Your task to perform on an android device: Open Youtube and go to "Your channel" Image 0: 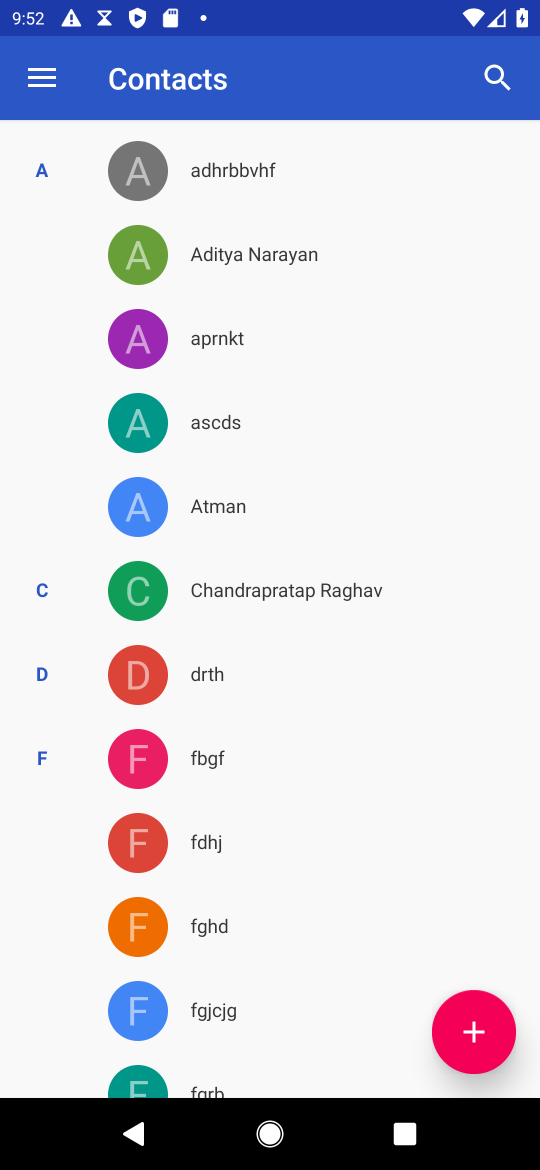
Step 0: press home button
Your task to perform on an android device: Open Youtube and go to "Your channel" Image 1: 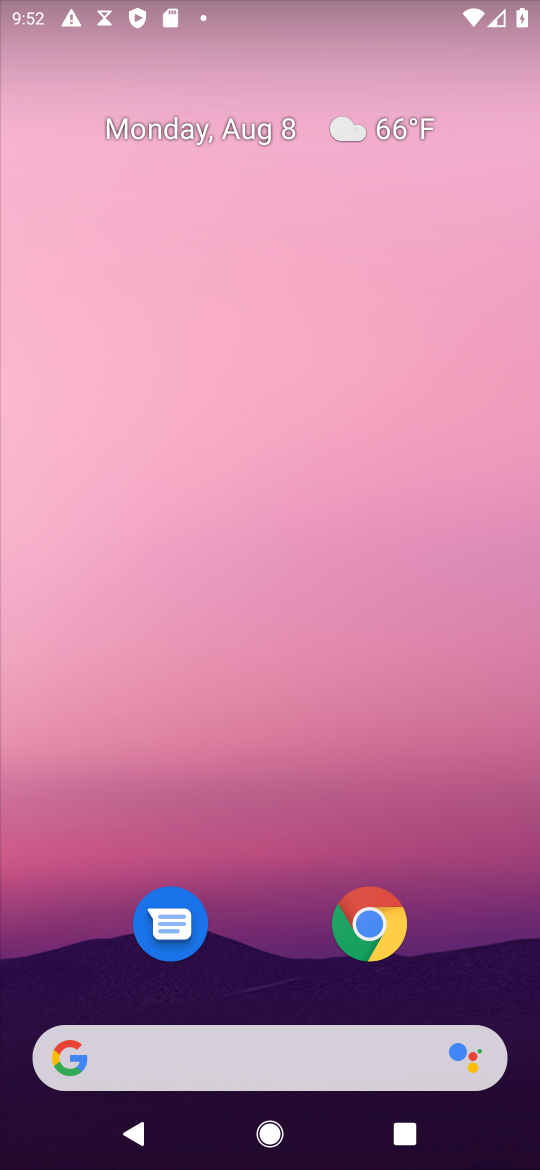
Step 1: drag from (284, 952) to (511, 5)
Your task to perform on an android device: Open Youtube and go to "Your channel" Image 2: 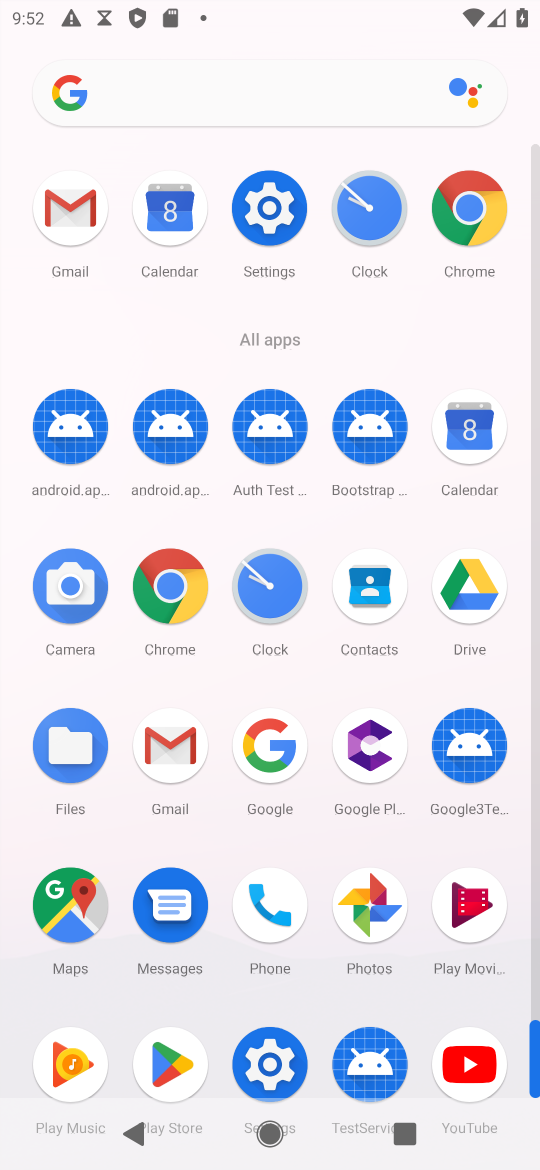
Step 2: click (468, 1067)
Your task to perform on an android device: Open Youtube and go to "Your channel" Image 3: 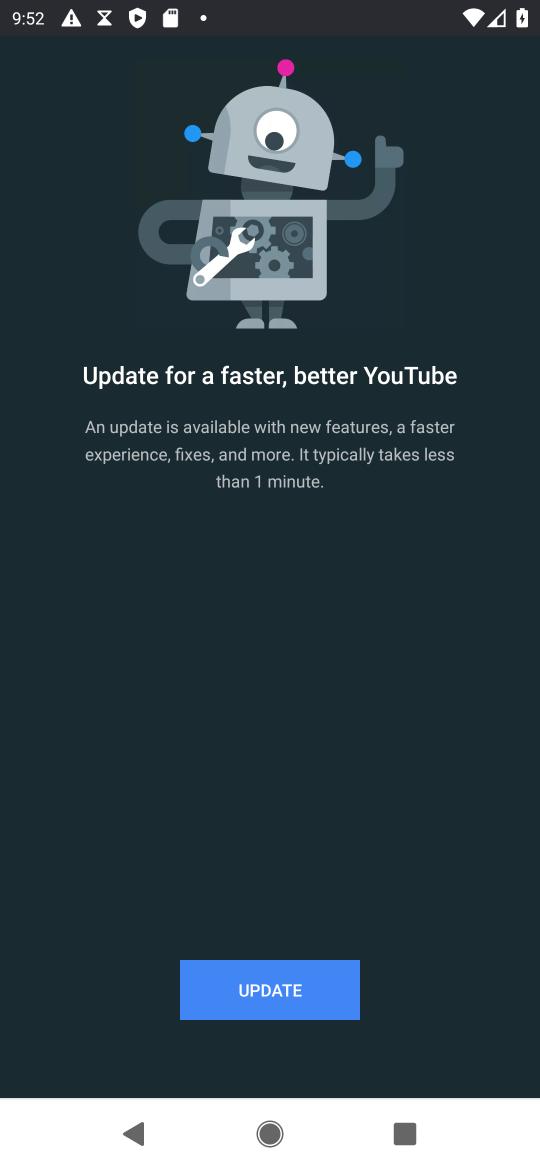
Step 3: click (327, 994)
Your task to perform on an android device: Open Youtube and go to "Your channel" Image 4: 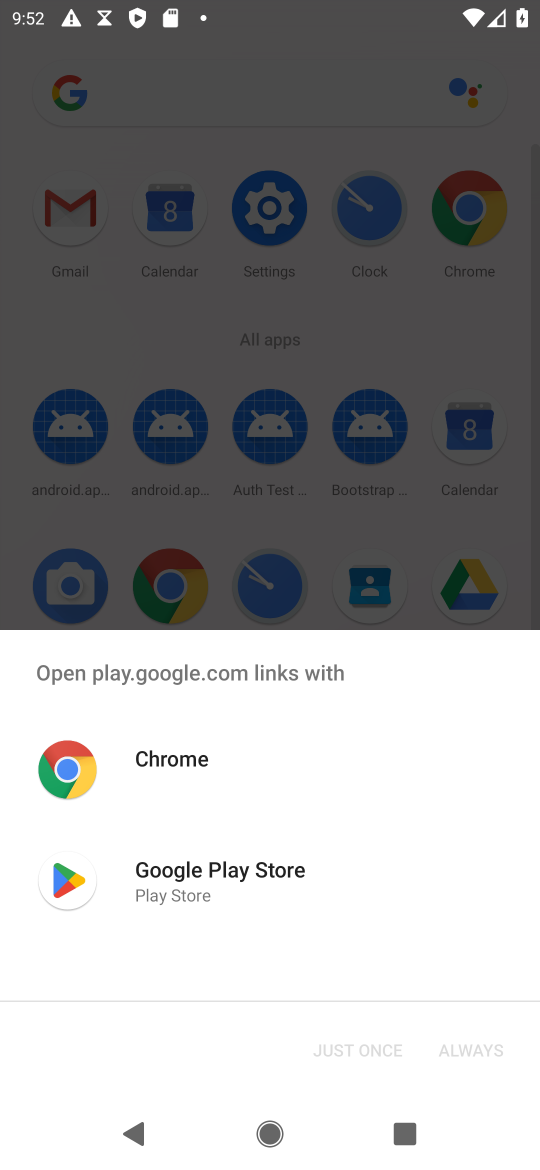
Step 4: click (179, 866)
Your task to perform on an android device: Open Youtube and go to "Your channel" Image 5: 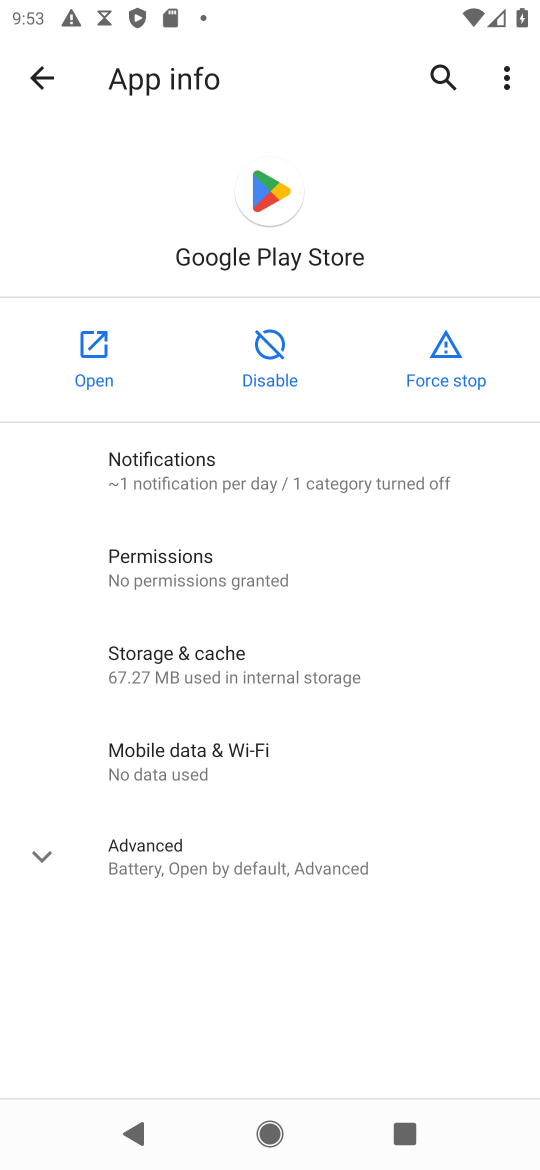
Step 5: click (39, 75)
Your task to perform on an android device: Open Youtube and go to "Your channel" Image 6: 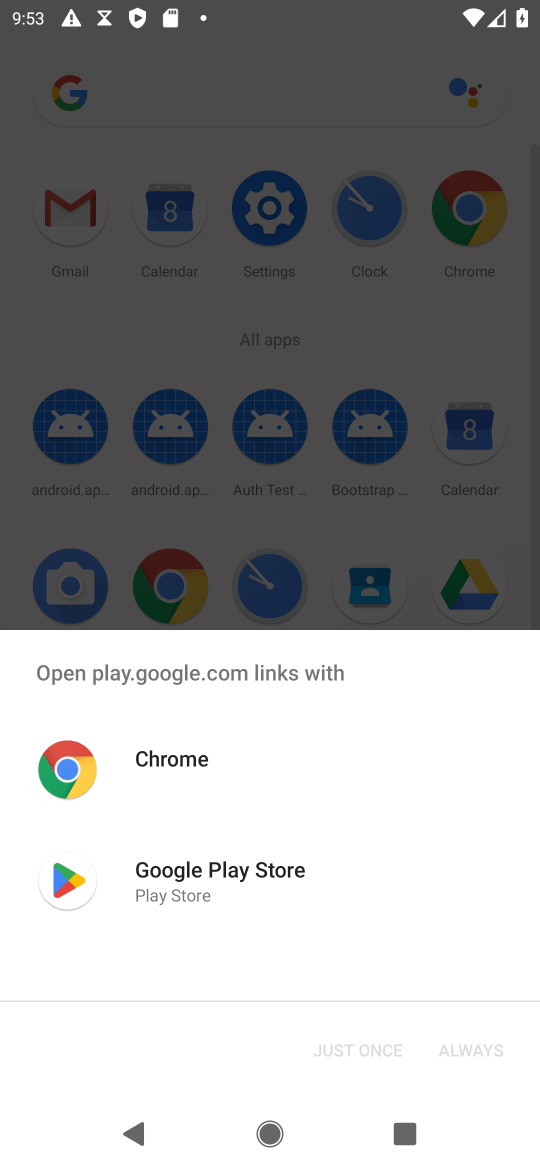
Step 6: click (81, 871)
Your task to perform on an android device: Open Youtube and go to "Your channel" Image 7: 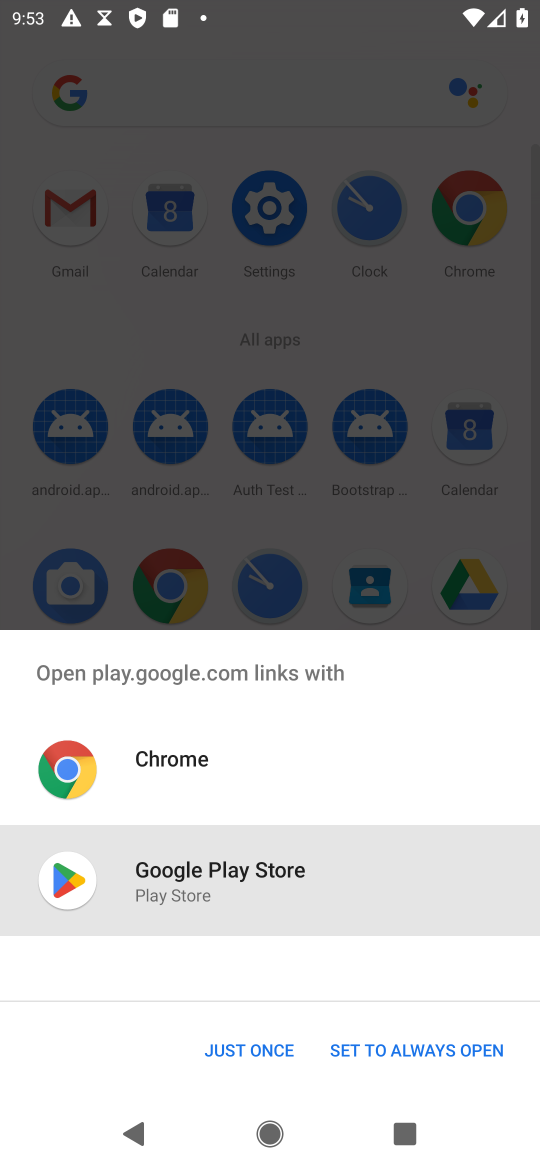
Step 7: click (242, 1032)
Your task to perform on an android device: Open Youtube and go to "Your channel" Image 8: 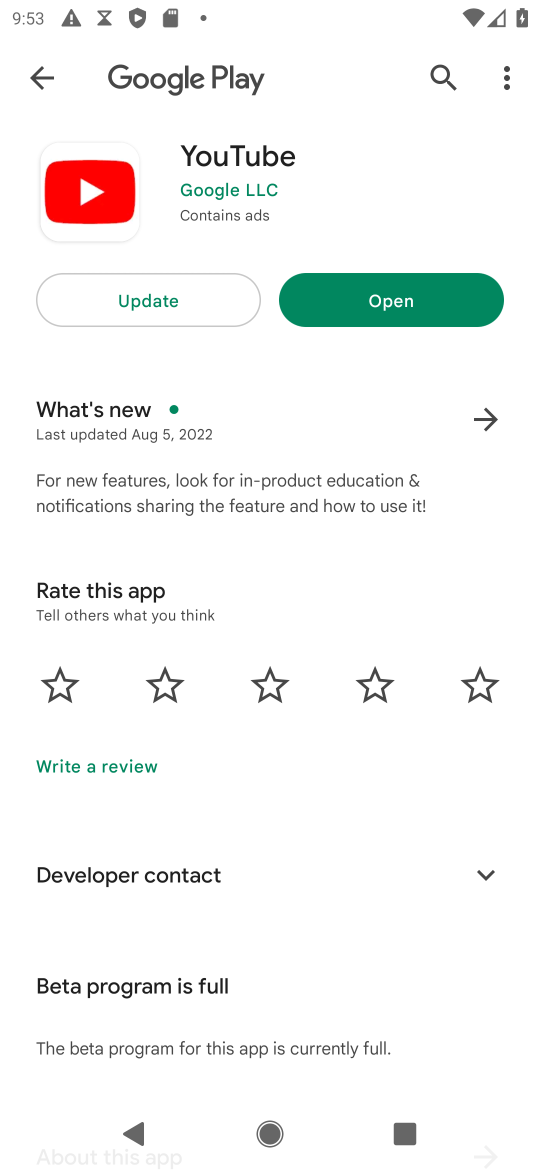
Step 8: drag from (401, 297) to (514, 422)
Your task to perform on an android device: Open Youtube and go to "Your channel" Image 9: 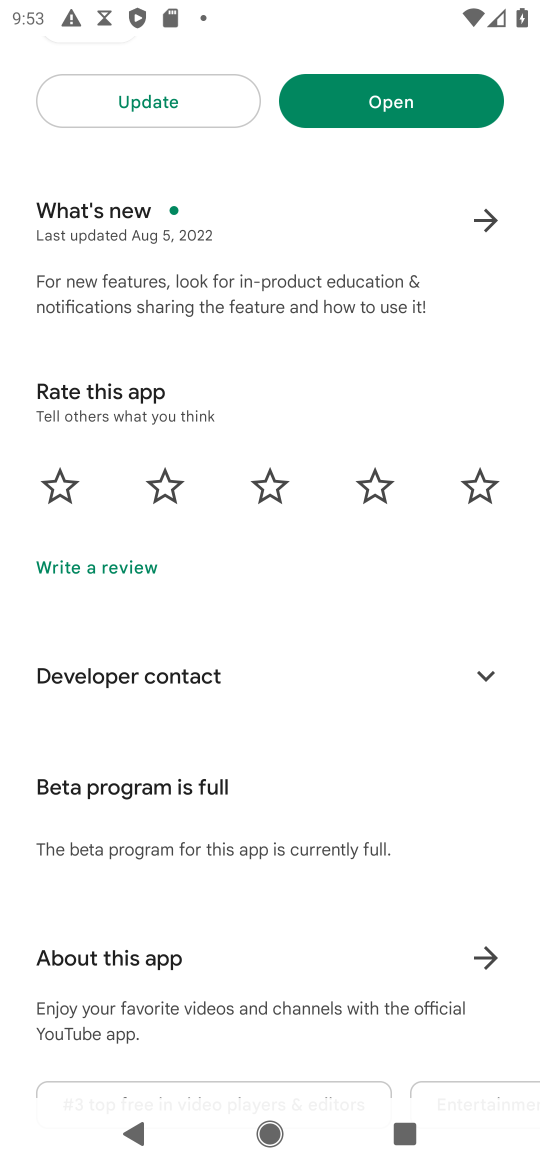
Step 9: click (157, 309)
Your task to perform on an android device: Open Youtube and go to "Your channel" Image 10: 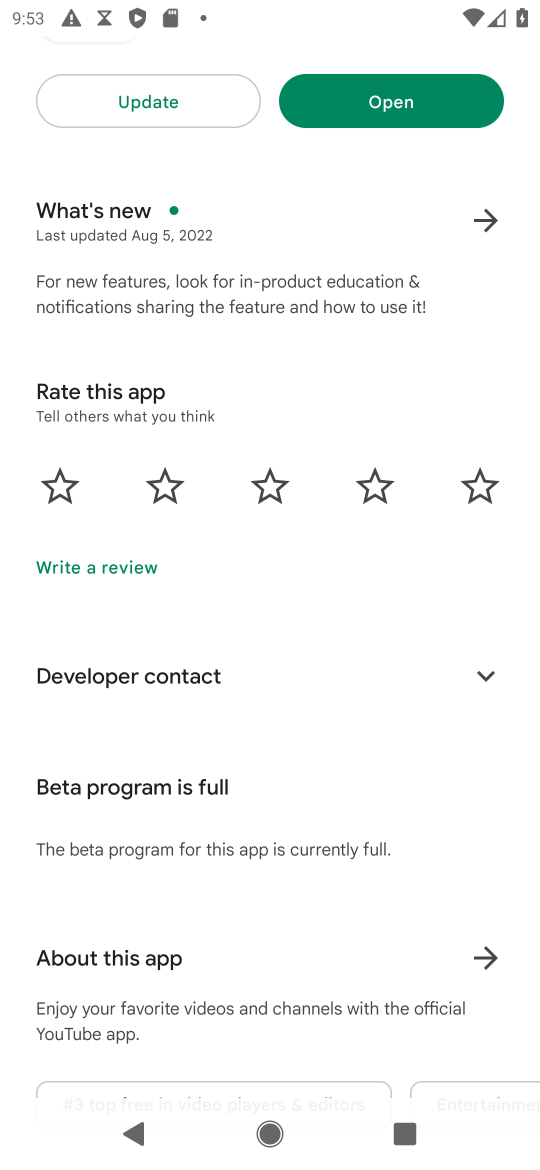
Step 10: click (159, 97)
Your task to perform on an android device: Open Youtube and go to "Your channel" Image 11: 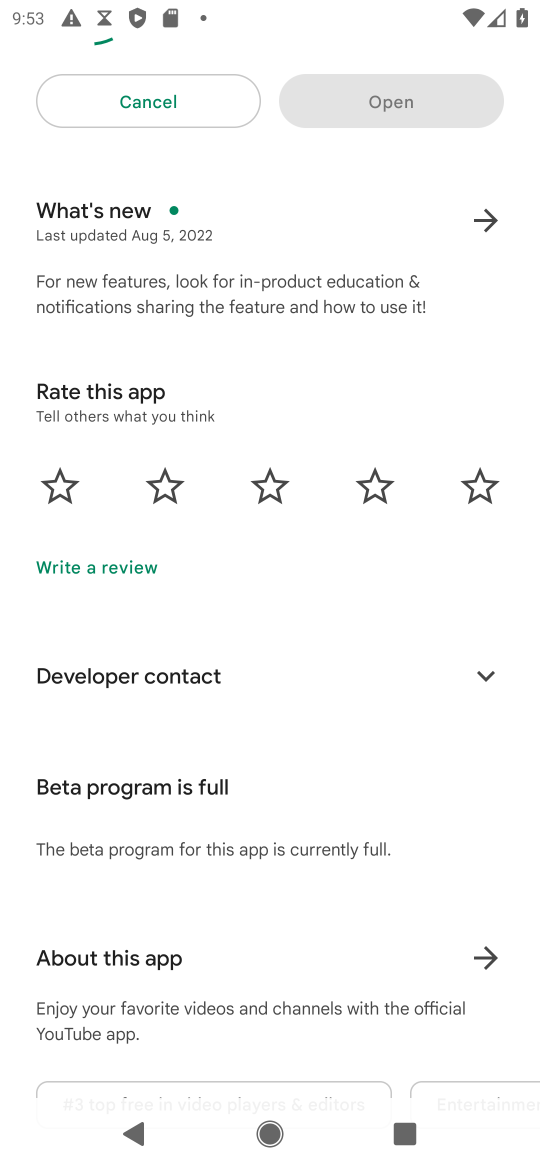
Step 11: task complete